Your task to perform on an android device: Toggle the flashlight Image 0: 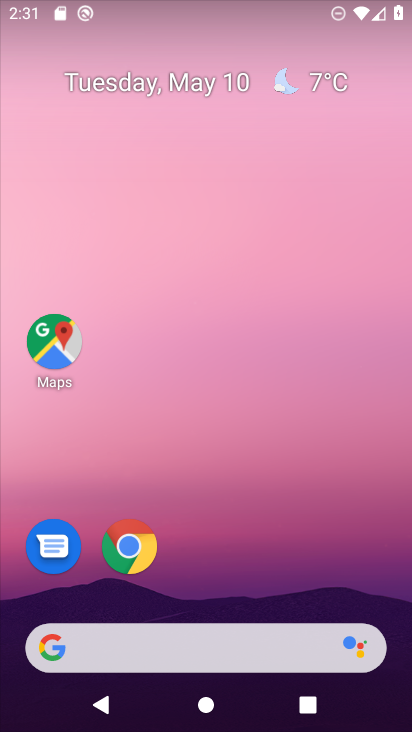
Step 0: drag from (313, 594) to (368, 153)
Your task to perform on an android device: Toggle the flashlight Image 1: 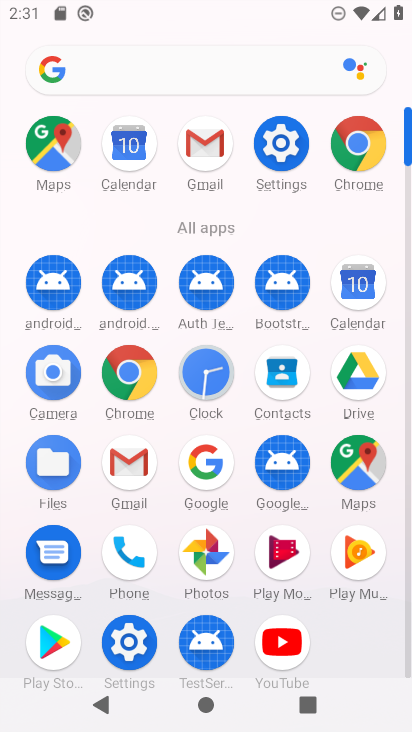
Step 1: click (285, 156)
Your task to perform on an android device: Toggle the flashlight Image 2: 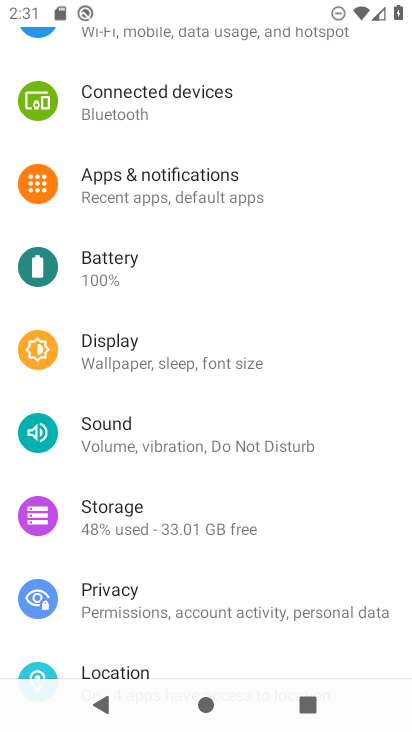
Step 2: drag from (305, 98) to (309, 626)
Your task to perform on an android device: Toggle the flashlight Image 3: 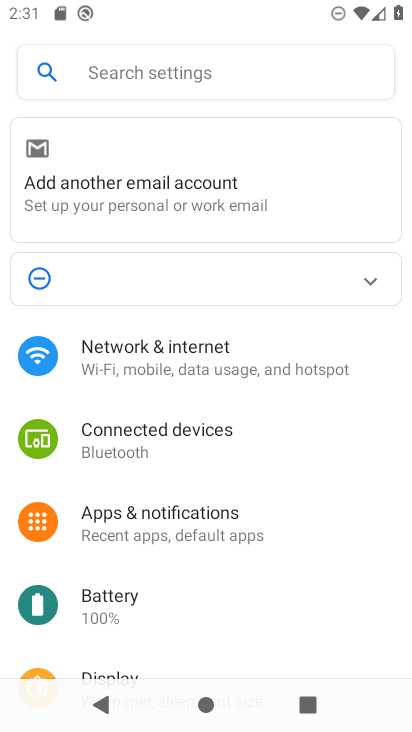
Step 3: click (201, 69)
Your task to perform on an android device: Toggle the flashlight Image 4: 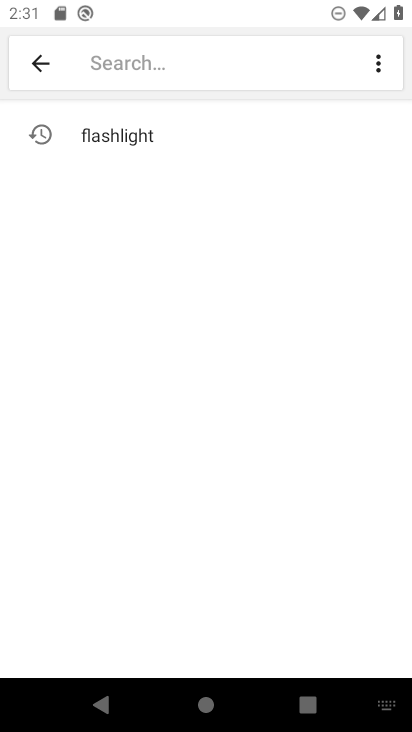
Step 4: click (152, 134)
Your task to perform on an android device: Toggle the flashlight Image 5: 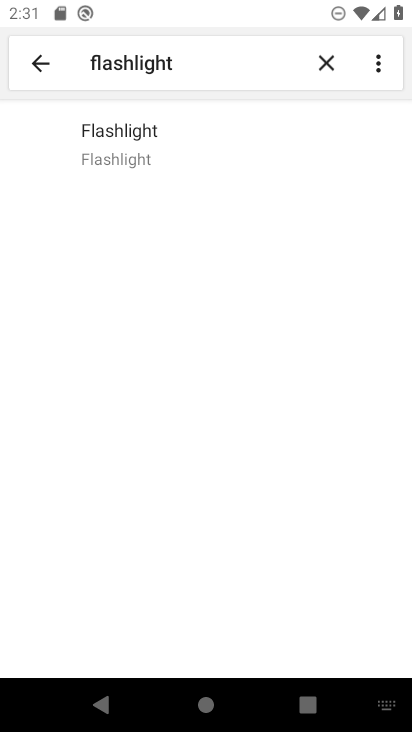
Step 5: task complete